Your task to perform on an android device: refresh tabs in the chrome app Image 0: 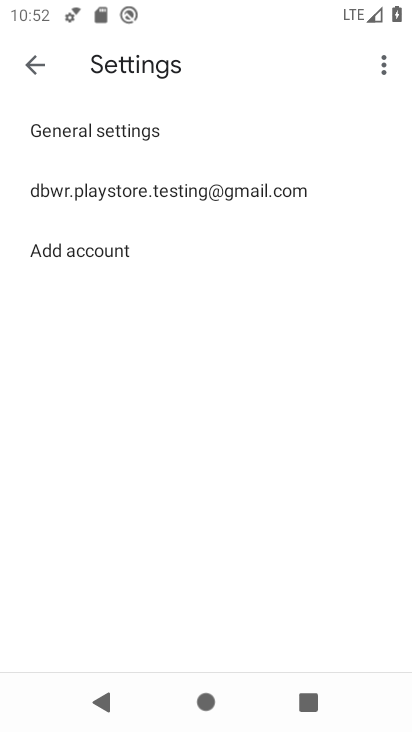
Step 0: press home button
Your task to perform on an android device: refresh tabs in the chrome app Image 1: 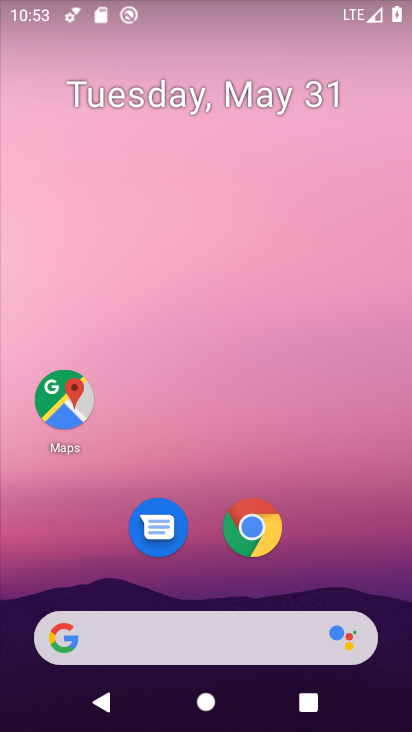
Step 1: click (265, 531)
Your task to perform on an android device: refresh tabs in the chrome app Image 2: 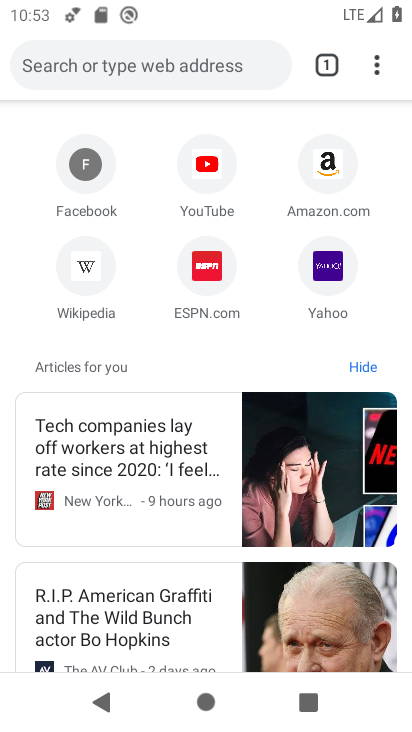
Step 2: click (375, 69)
Your task to perform on an android device: refresh tabs in the chrome app Image 3: 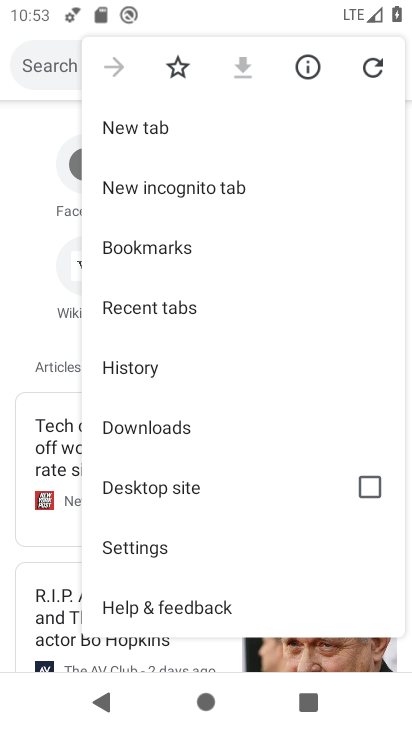
Step 3: click (370, 70)
Your task to perform on an android device: refresh tabs in the chrome app Image 4: 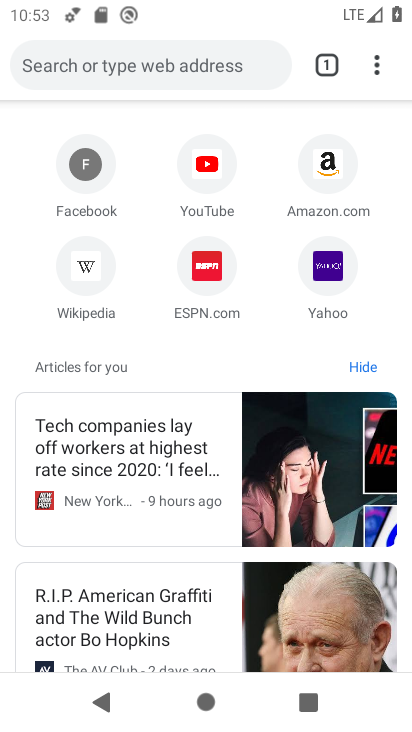
Step 4: task complete